Your task to perform on an android device: toggle location history Image 0: 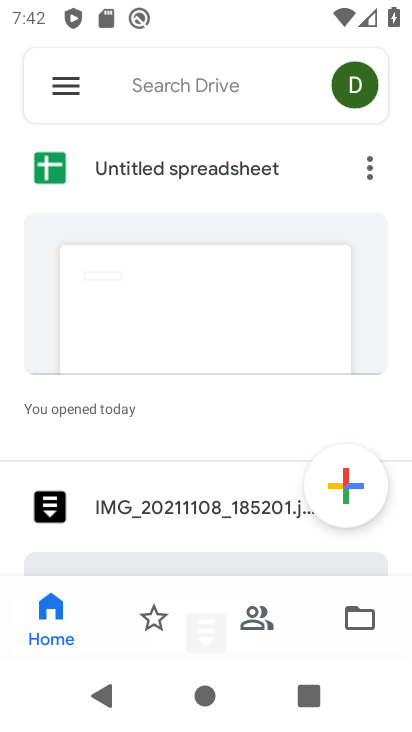
Step 0: press back button
Your task to perform on an android device: toggle location history Image 1: 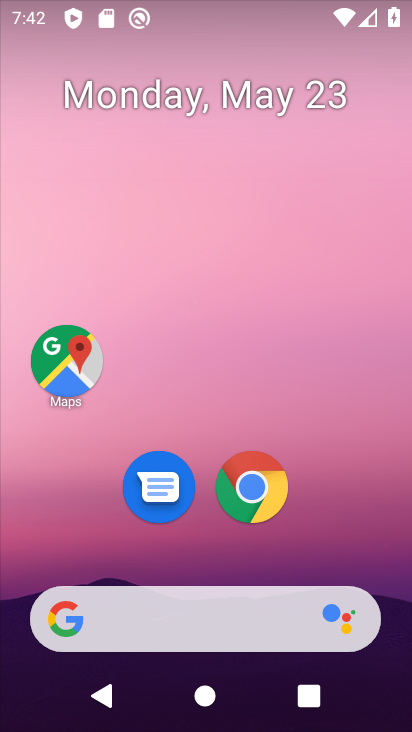
Step 1: drag from (312, 527) to (310, 3)
Your task to perform on an android device: toggle location history Image 2: 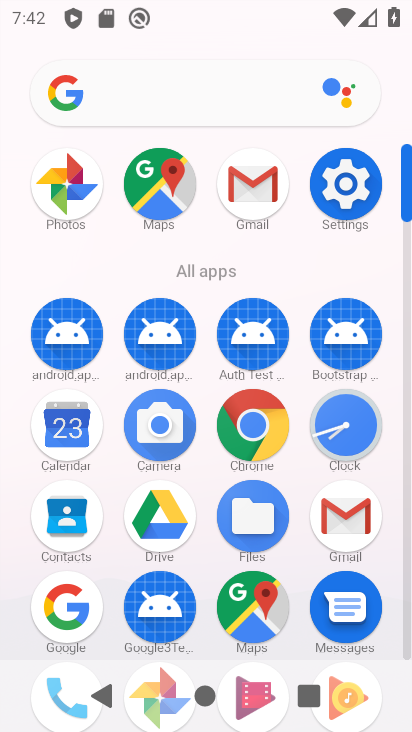
Step 2: click (343, 183)
Your task to perform on an android device: toggle location history Image 3: 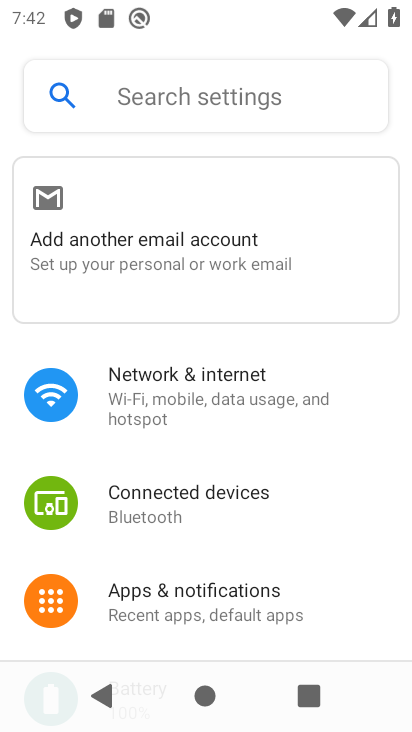
Step 3: drag from (269, 570) to (318, 126)
Your task to perform on an android device: toggle location history Image 4: 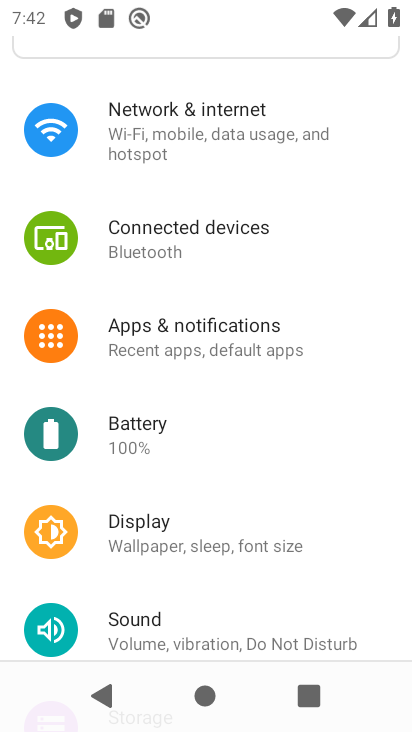
Step 4: drag from (173, 594) to (239, 138)
Your task to perform on an android device: toggle location history Image 5: 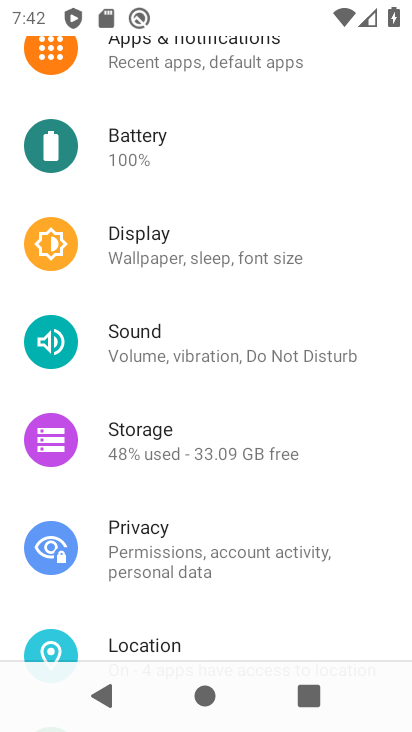
Step 5: drag from (162, 635) to (264, 212)
Your task to perform on an android device: toggle location history Image 6: 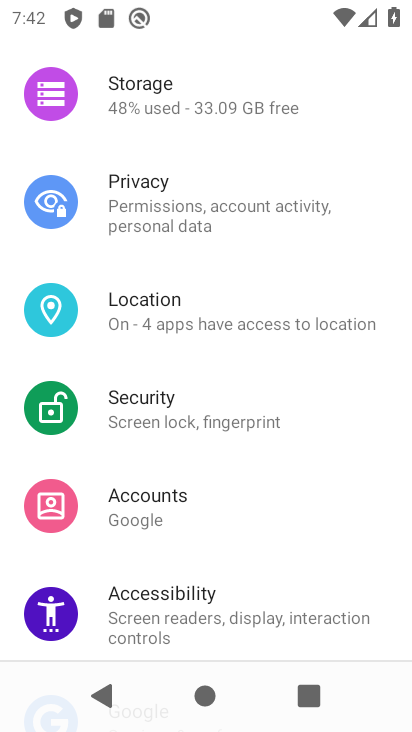
Step 6: click (138, 306)
Your task to perform on an android device: toggle location history Image 7: 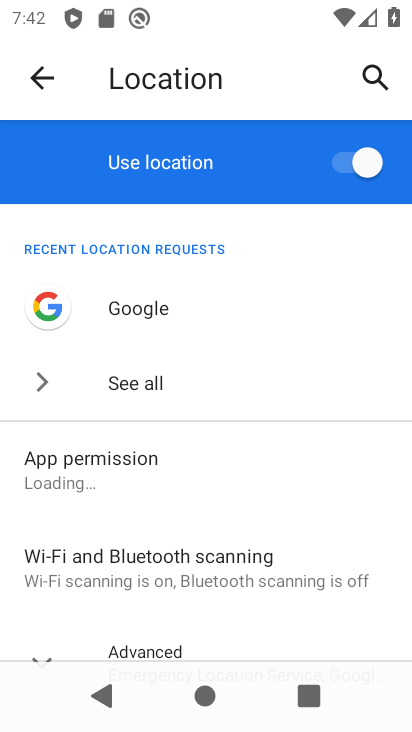
Step 7: drag from (246, 522) to (250, 145)
Your task to perform on an android device: toggle location history Image 8: 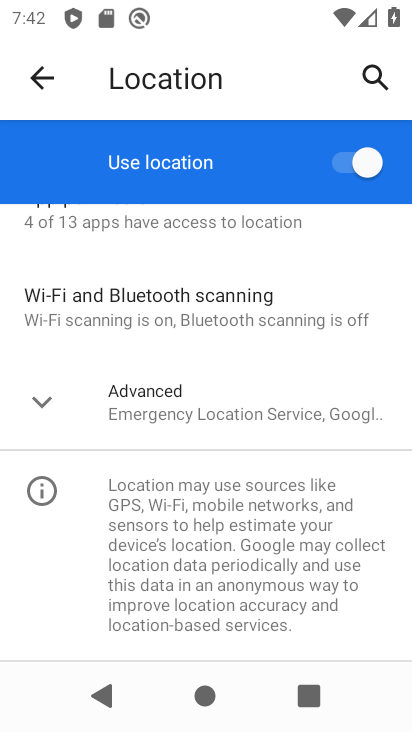
Step 8: click (39, 399)
Your task to perform on an android device: toggle location history Image 9: 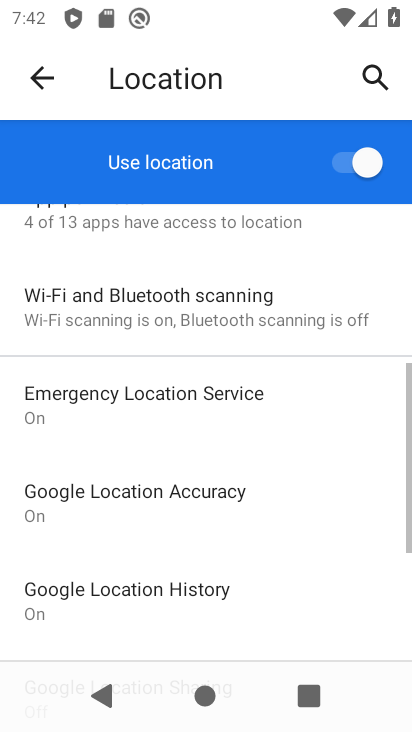
Step 9: drag from (251, 586) to (314, 262)
Your task to perform on an android device: toggle location history Image 10: 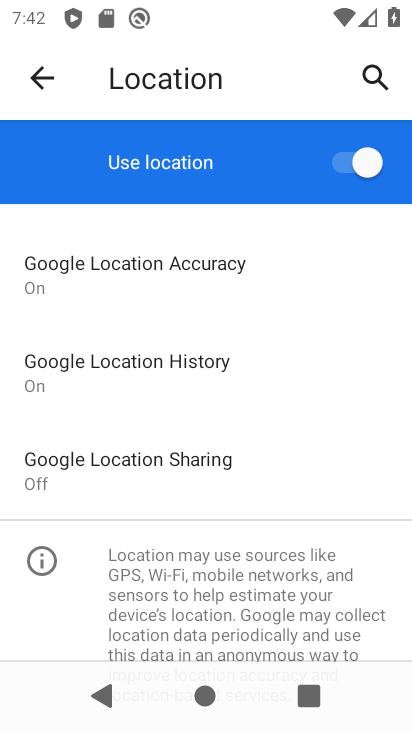
Step 10: click (162, 366)
Your task to perform on an android device: toggle location history Image 11: 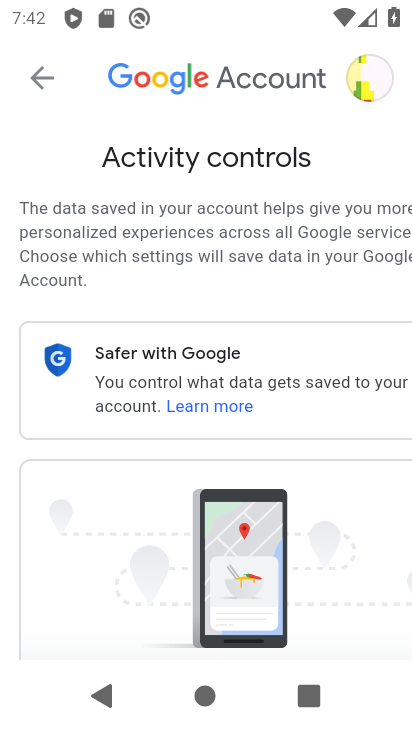
Step 11: drag from (152, 527) to (134, 164)
Your task to perform on an android device: toggle location history Image 12: 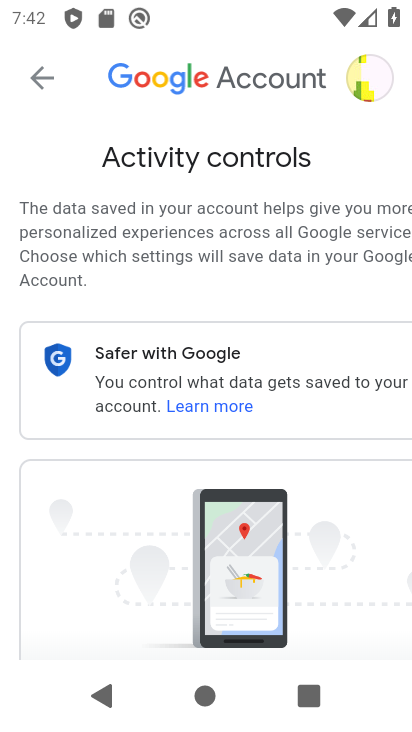
Step 12: drag from (175, 534) to (131, 140)
Your task to perform on an android device: toggle location history Image 13: 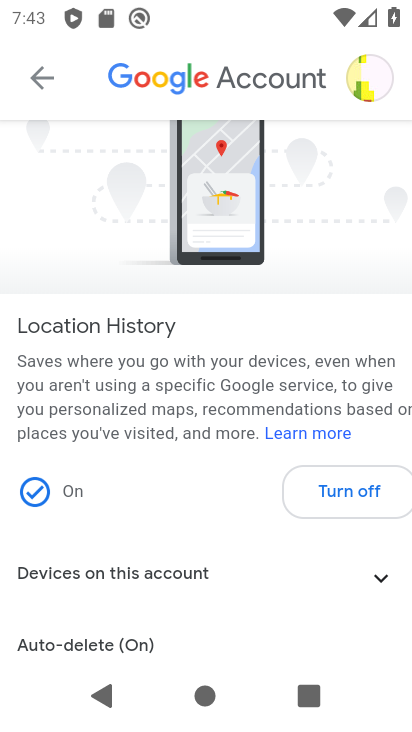
Step 13: click (366, 502)
Your task to perform on an android device: toggle location history Image 14: 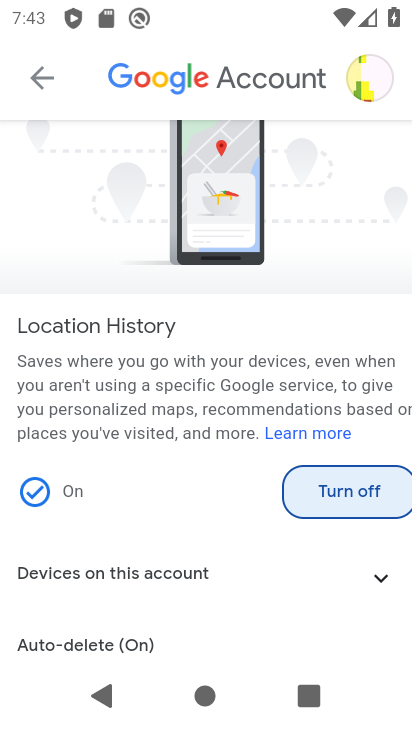
Step 14: click (345, 494)
Your task to perform on an android device: toggle location history Image 15: 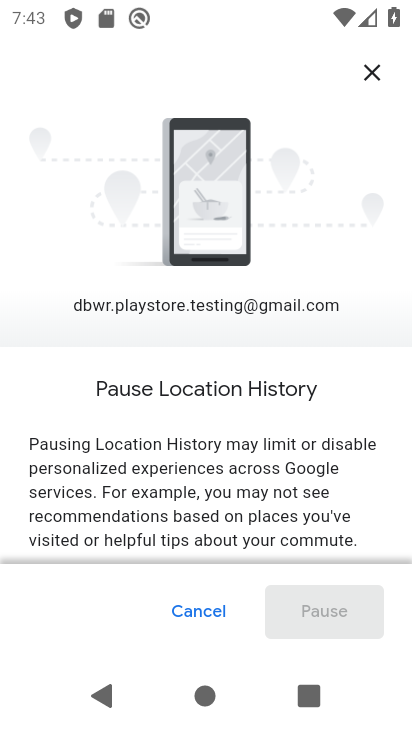
Step 15: drag from (318, 495) to (347, 145)
Your task to perform on an android device: toggle location history Image 16: 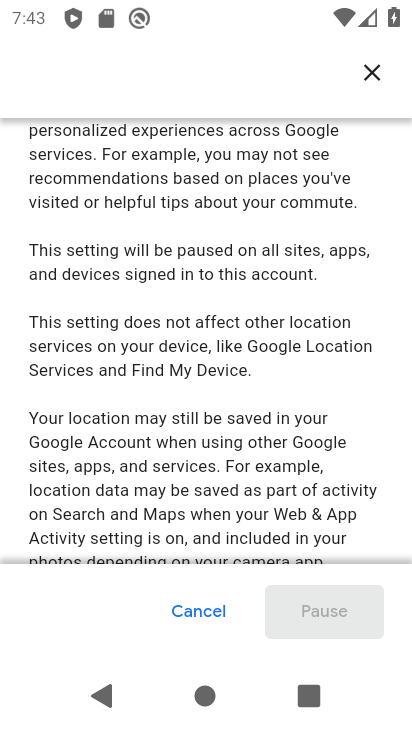
Step 16: drag from (253, 481) to (239, 63)
Your task to perform on an android device: toggle location history Image 17: 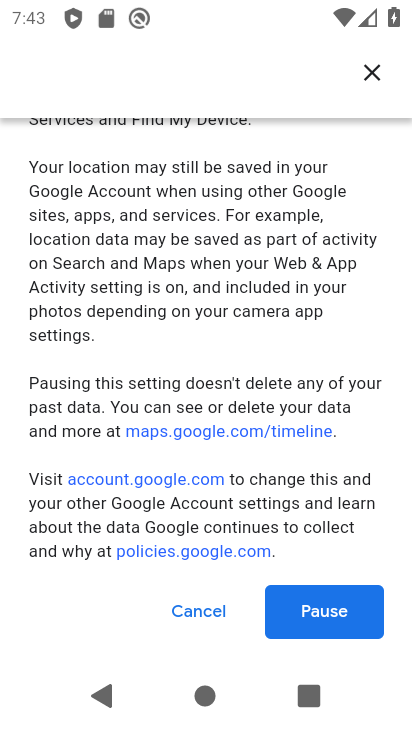
Step 17: drag from (213, 417) to (201, 252)
Your task to perform on an android device: toggle location history Image 18: 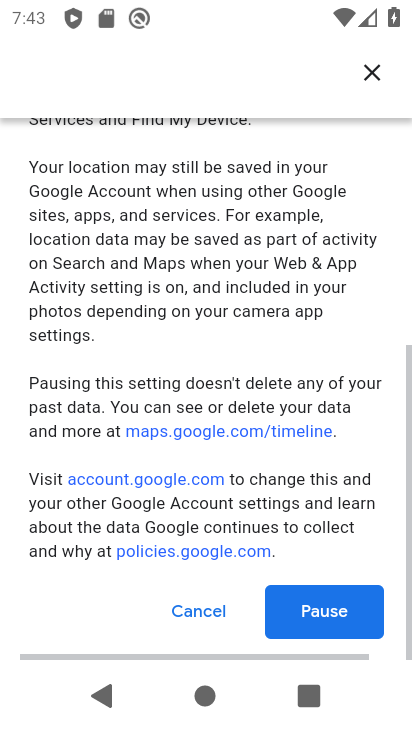
Step 18: click (301, 605)
Your task to perform on an android device: toggle location history Image 19: 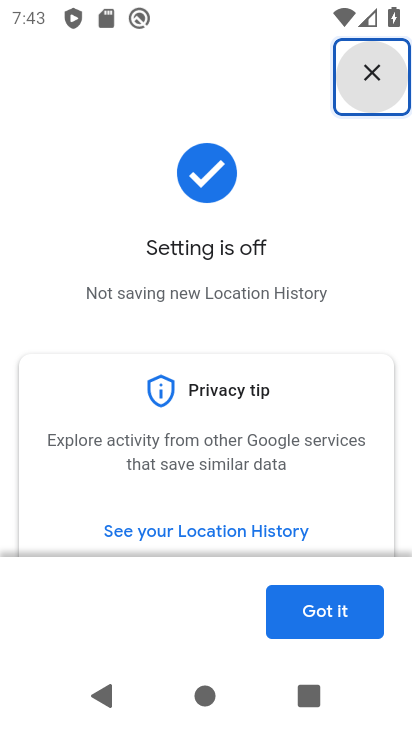
Step 19: task complete